Your task to perform on an android device: empty trash in google photos Image 0: 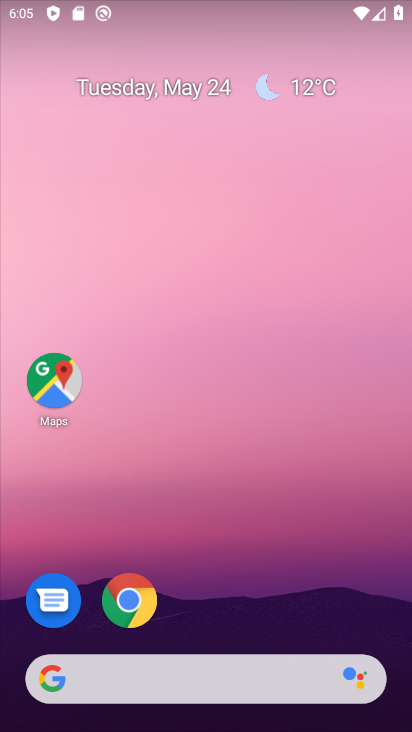
Step 0: drag from (313, 642) to (293, 72)
Your task to perform on an android device: empty trash in google photos Image 1: 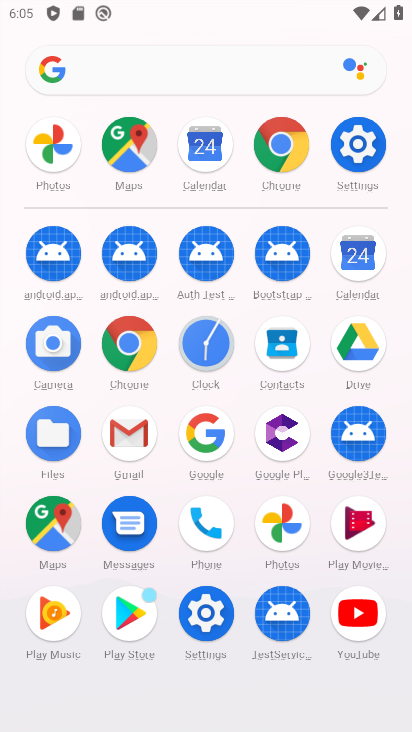
Step 1: click (271, 513)
Your task to perform on an android device: empty trash in google photos Image 2: 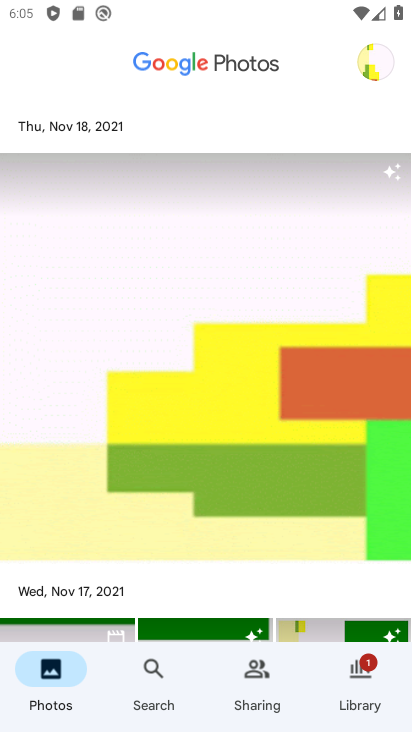
Step 2: click (372, 67)
Your task to perform on an android device: empty trash in google photos Image 3: 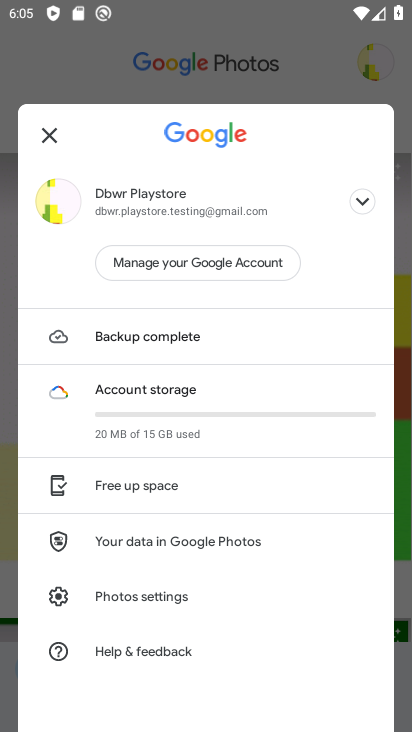
Step 3: click (40, 131)
Your task to perform on an android device: empty trash in google photos Image 4: 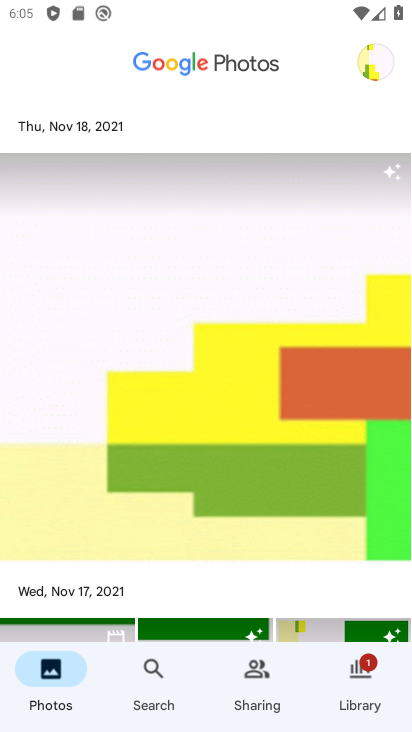
Step 4: click (353, 675)
Your task to perform on an android device: empty trash in google photos Image 5: 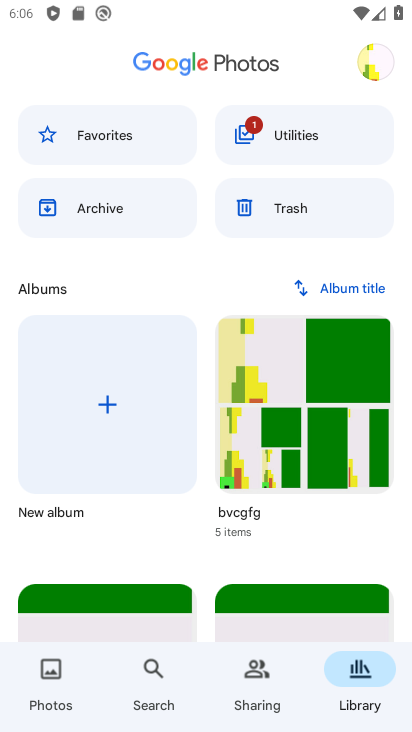
Step 5: click (287, 208)
Your task to perform on an android device: empty trash in google photos Image 6: 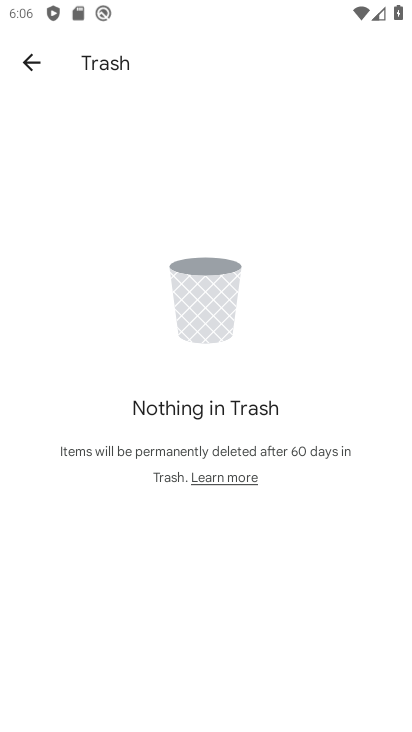
Step 6: task complete